Your task to perform on an android device: Go to Amazon Image 0: 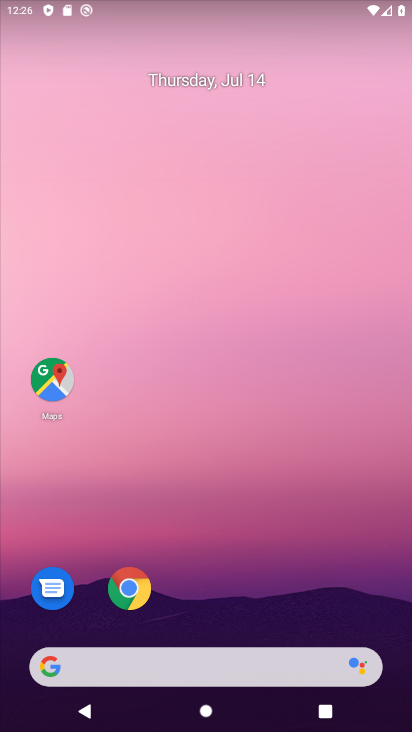
Step 0: click (127, 583)
Your task to perform on an android device: Go to Amazon Image 1: 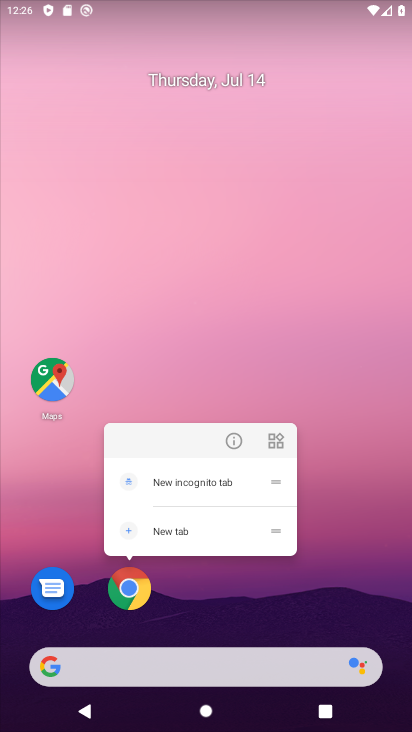
Step 1: click (127, 583)
Your task to perform on an android device: Go to Amazon Image 2: 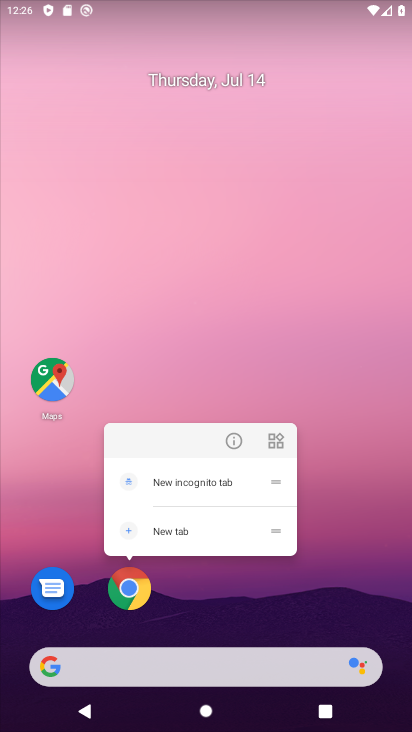
Step 2: click (242, 302)
Your task to perform on an android device: Go to Amazon Image 3: 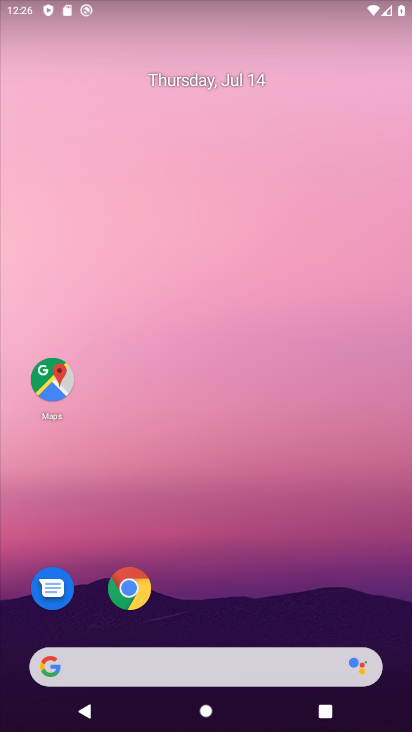
Step 3: drag from (346, 589) to (320, 222)
Your task to perform on an android device: Go to Amazon Image 4: 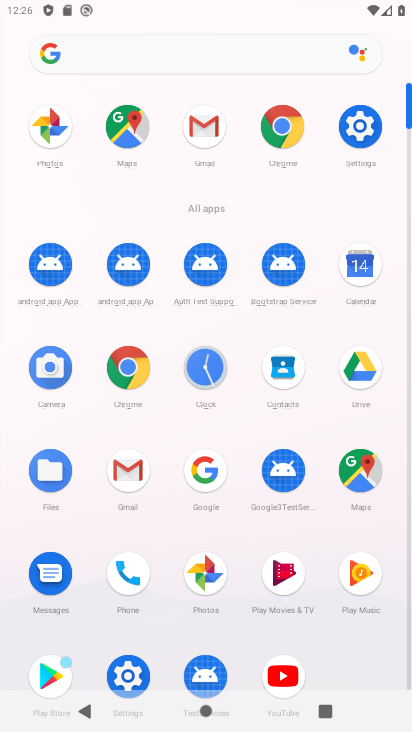
Step 4: click (293, 121)
Your task to perform on an android device: Go to Amazon Image 5: 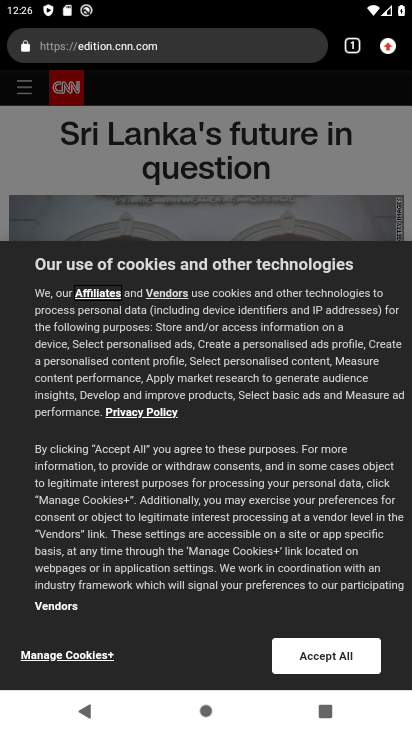
Step 5: click (385, 49)
Your task to perform on an android device: Go to Amazon Image 6: 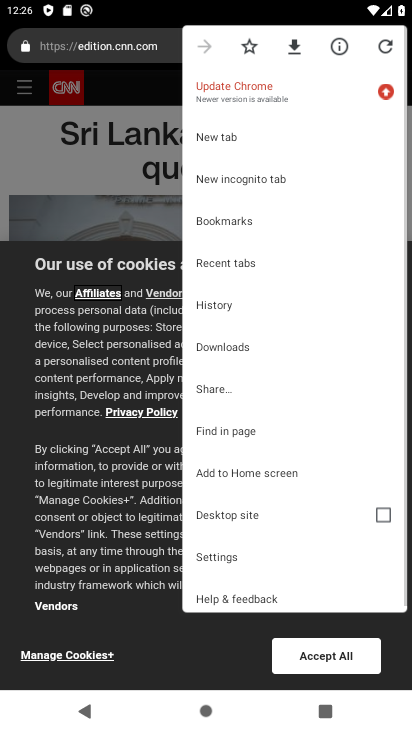
Step 6: click (233, 140)
Your task to perform on an android device: Go to Amazon Image 7: 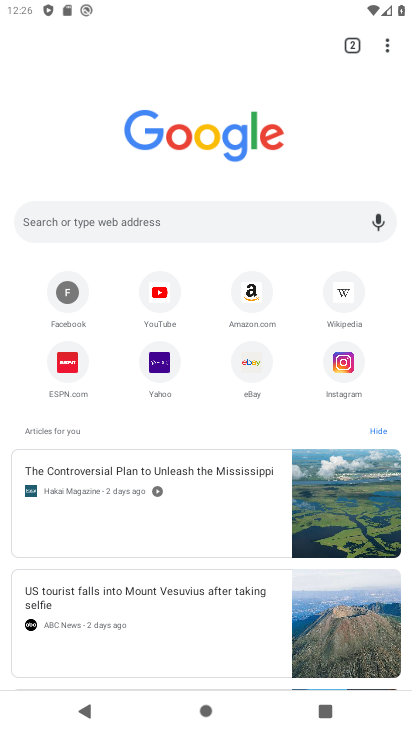
Step 7: click (253, 272)
Your task to perform on an android device: Go to Amazon Image 8: 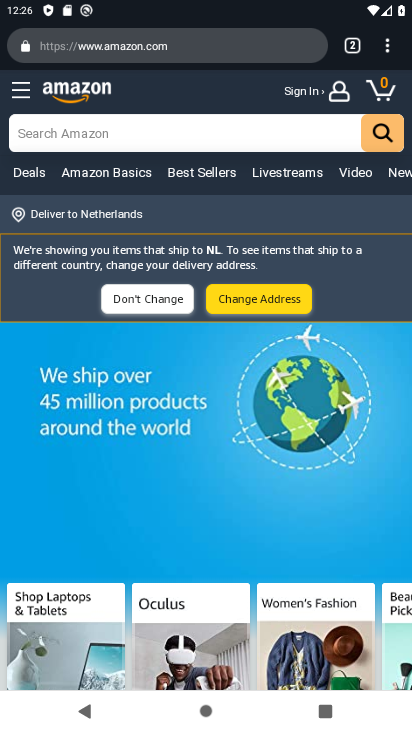
Step 8: task complete